Your task to perform on an android device: Add "logitech g pro" to the cart on costco, then select checkout. Image 0: 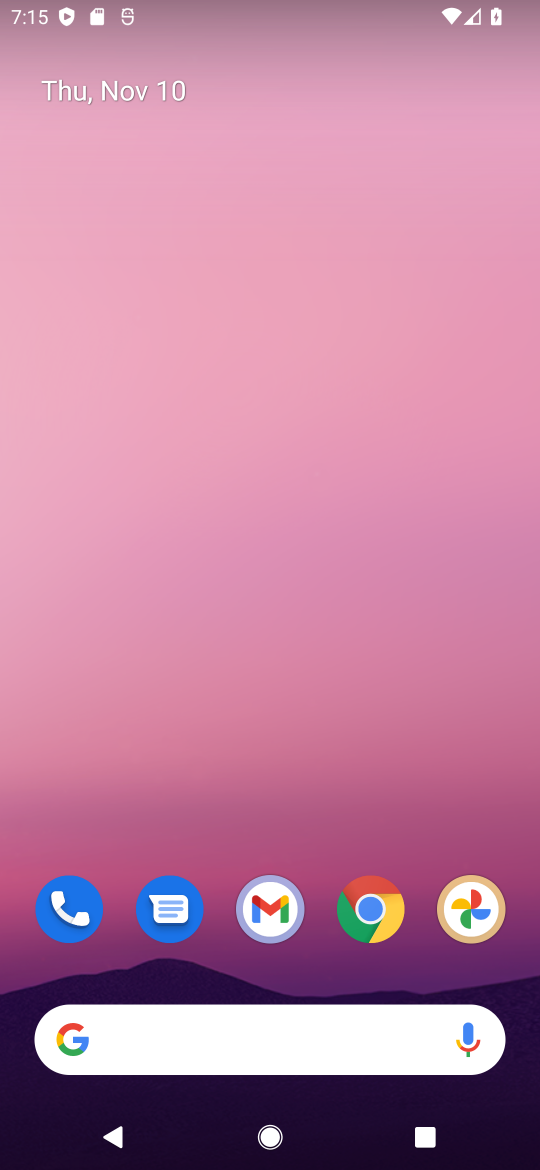
Step 0: drag from (272, 1002) to (294, 297)
Your task to perform on an android device: Add "logitech g pro" to the cart on costco, then select checkout. Image 1: 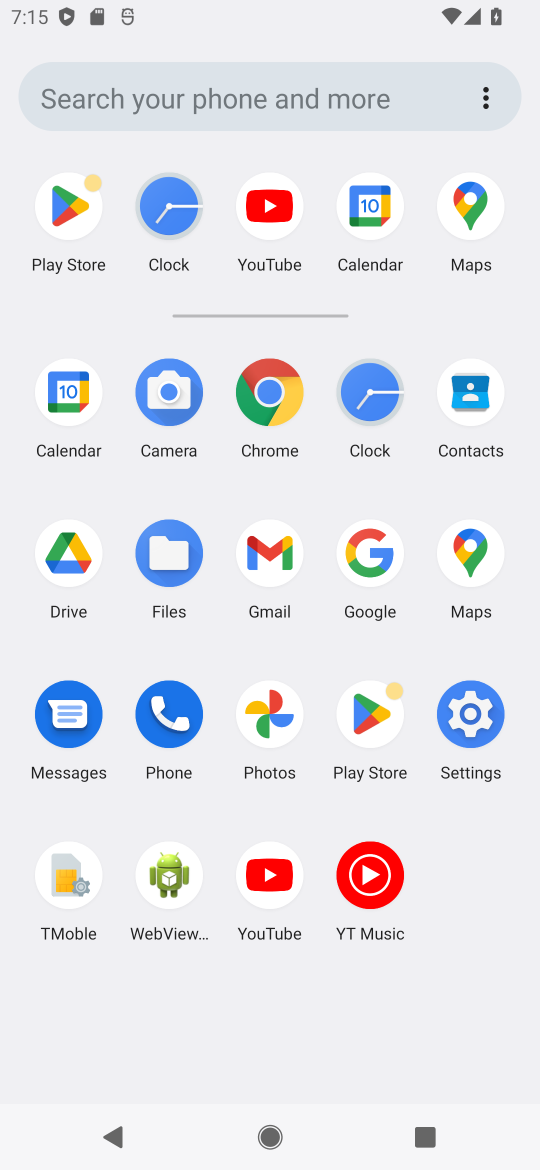
Step 1: click (354, 539)
Your task to perform on an android device: Add "logitech g pro" to the cart on costco, then select checkout. Image 2: 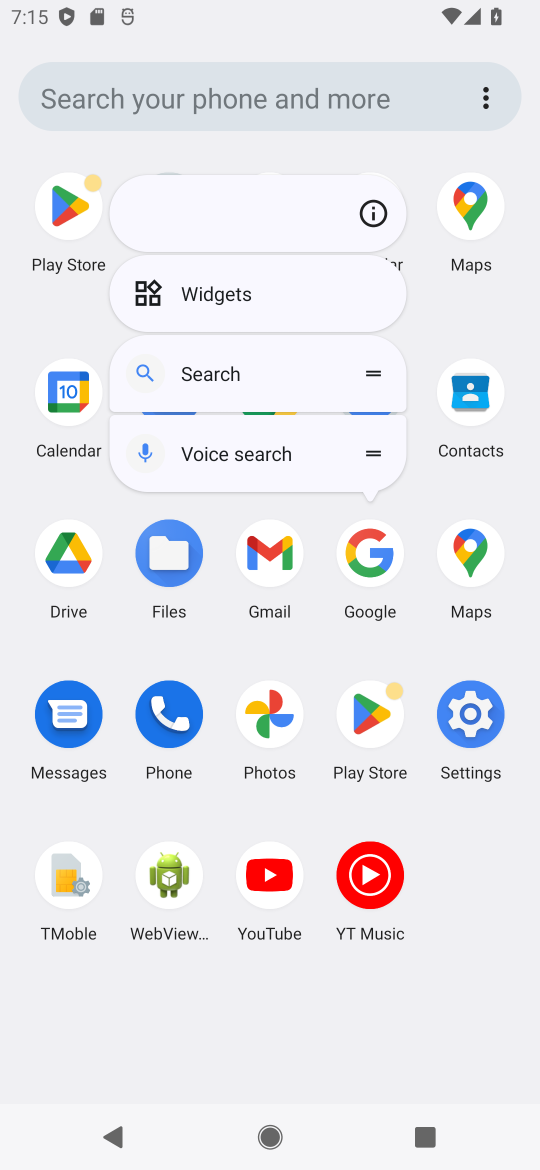
Step 2: click (373, 539)
Your task to perform on an android device: Add "logitech g pro" to the cart on costco, then select checkout. Image 3: 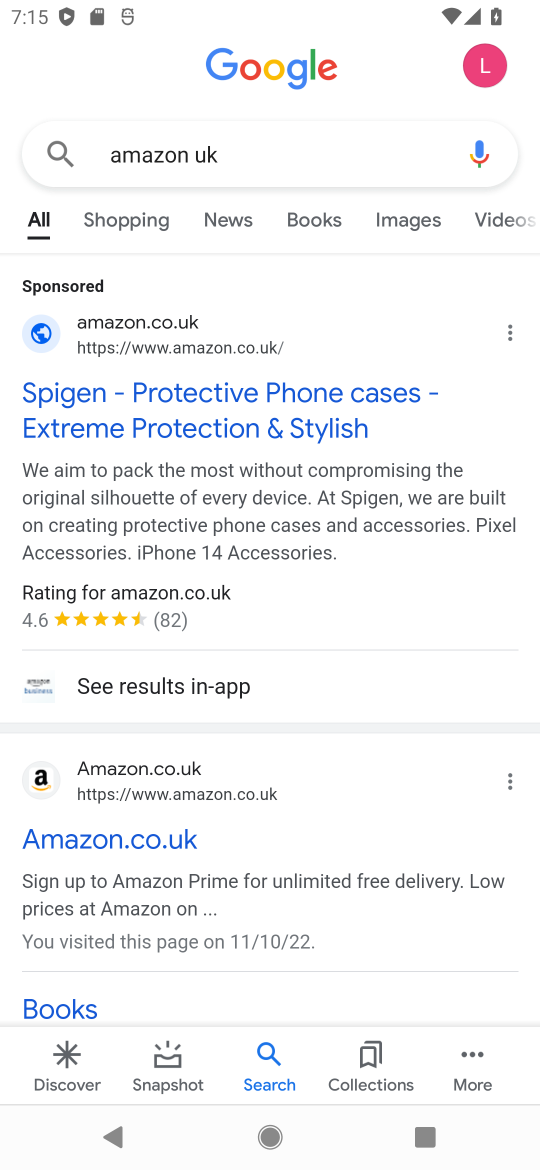
Step 3: click (265, 136)
Your task to perform on an android device: Add "logitech g pro" to the cart on costco, then select checkout. Image 4: 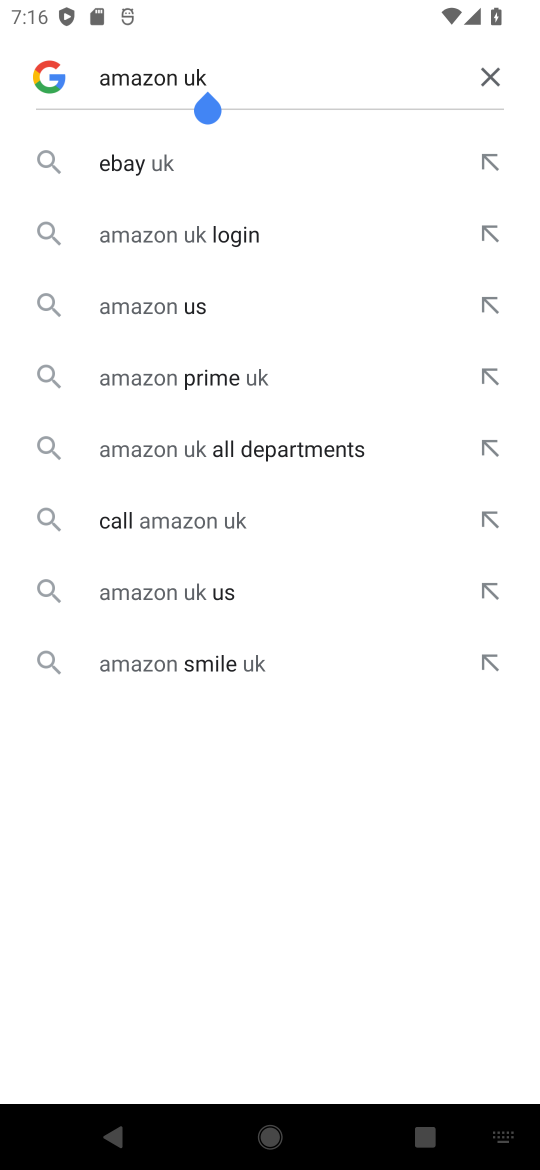
Step 4: click (486, 83)
Your task to perform on an android device: Add "logitech g pro" to the cart on costco, then select checkout. Image 5: 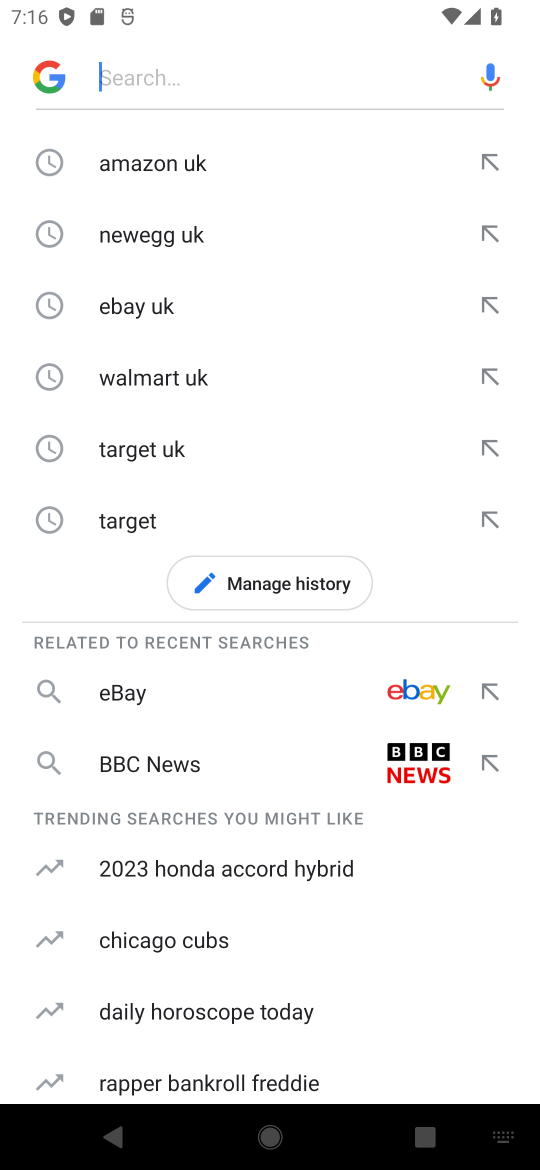
Step 5: click (155, 56)
Your task to perform on an android device: Add "logitech g pro" to the cart on costco, then select checkout. Image 6: 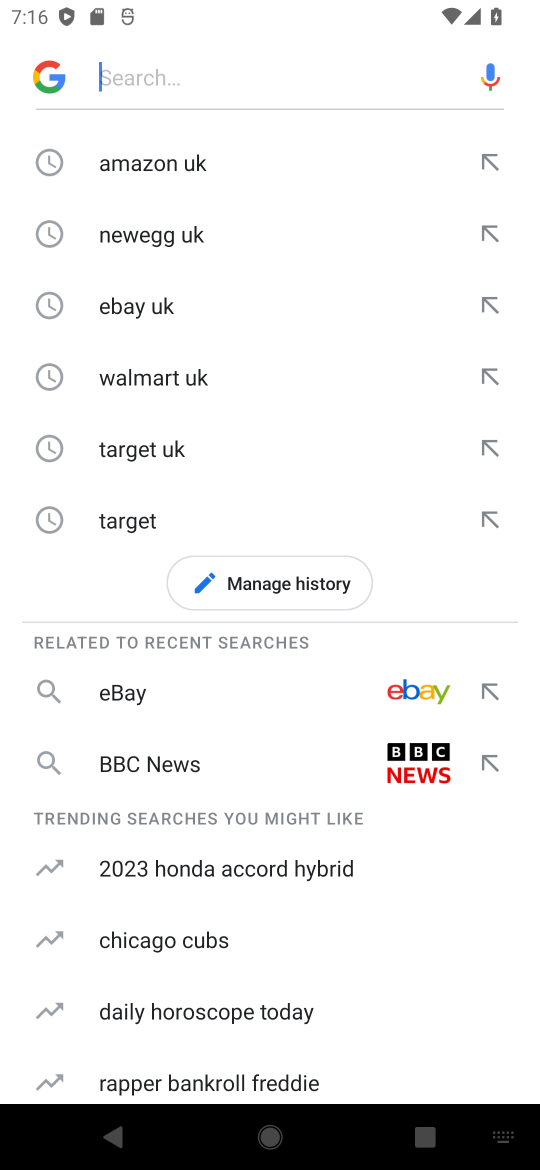
Step 6: type "costco "
Your task to perform on an android device: Add "logitech g pro" to the cart on costco, then select checkout. Image 7: 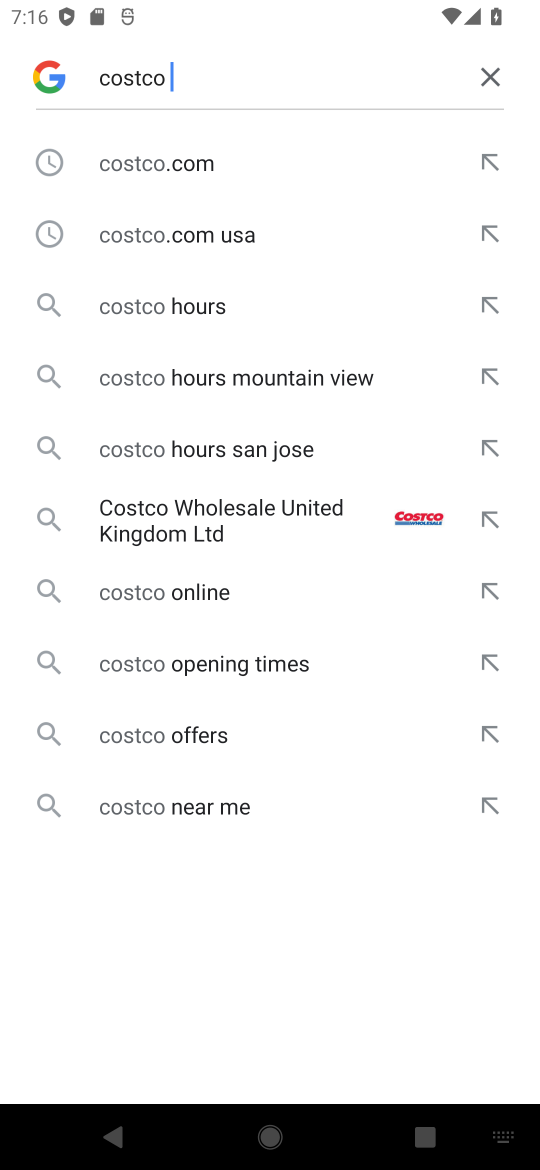
Step 7: click (127, 173)
Your task to perform on an android device: Add "logitech g pro" to the cart on costco, then select checkout. Image 8: 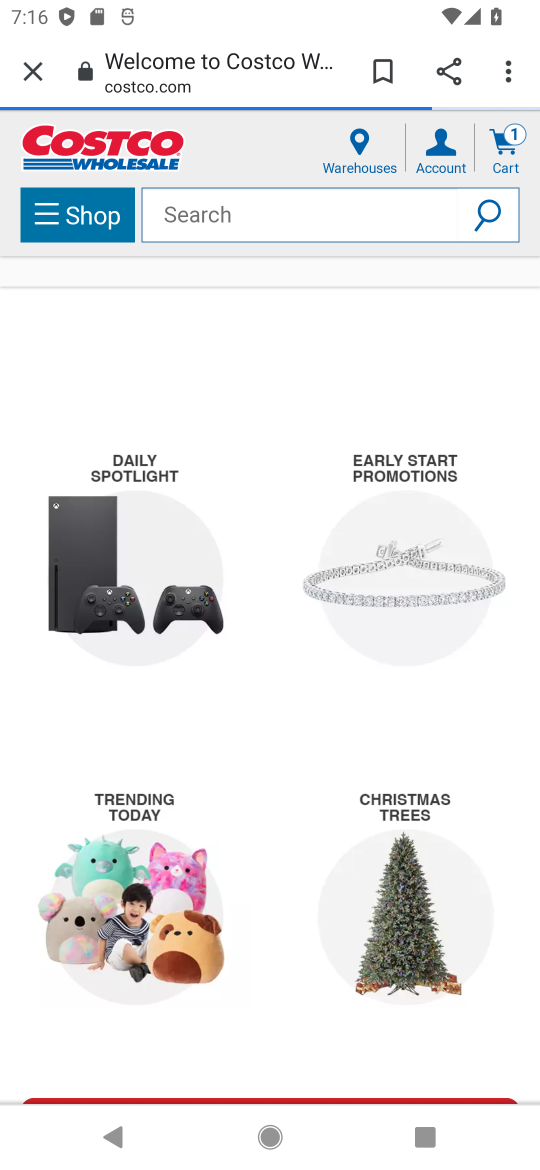
Step 8: click (243, 205)
Your task to perform on an android device: Add "logitech g pro" to the cart on costco, then select checkout. Image 9: 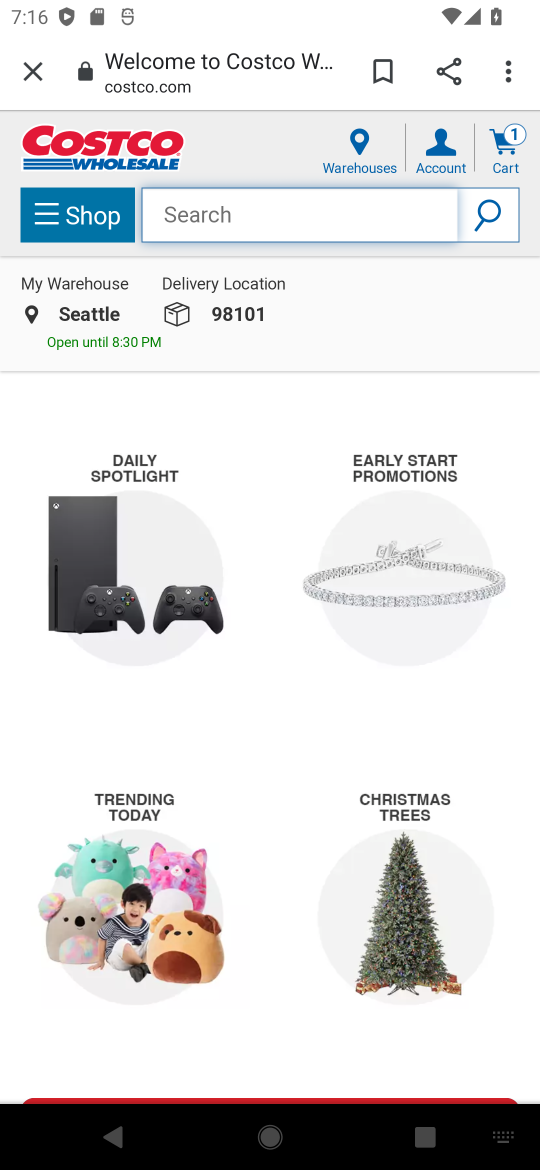
Step 9: click (276, 192)
Your task to perform on an android device: Add "logitech g pro" to the cart on costco, then select checkout. Image 10: 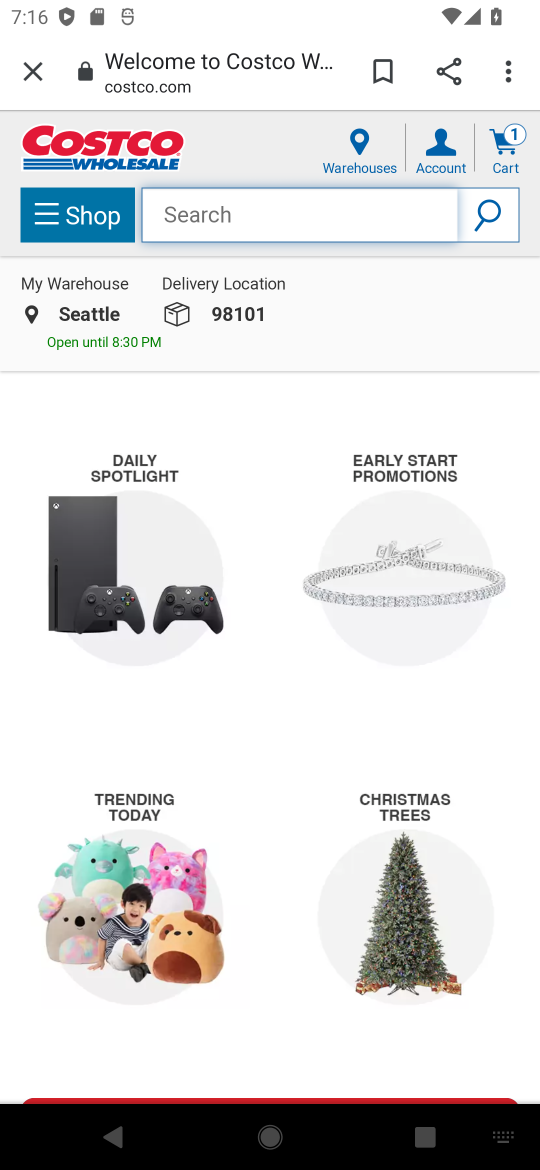
Step 10: type "logitech g pro "
Your task to perform on an android device: Add "logitech g pro" to the cart on costco, then select checkout. Image 11: 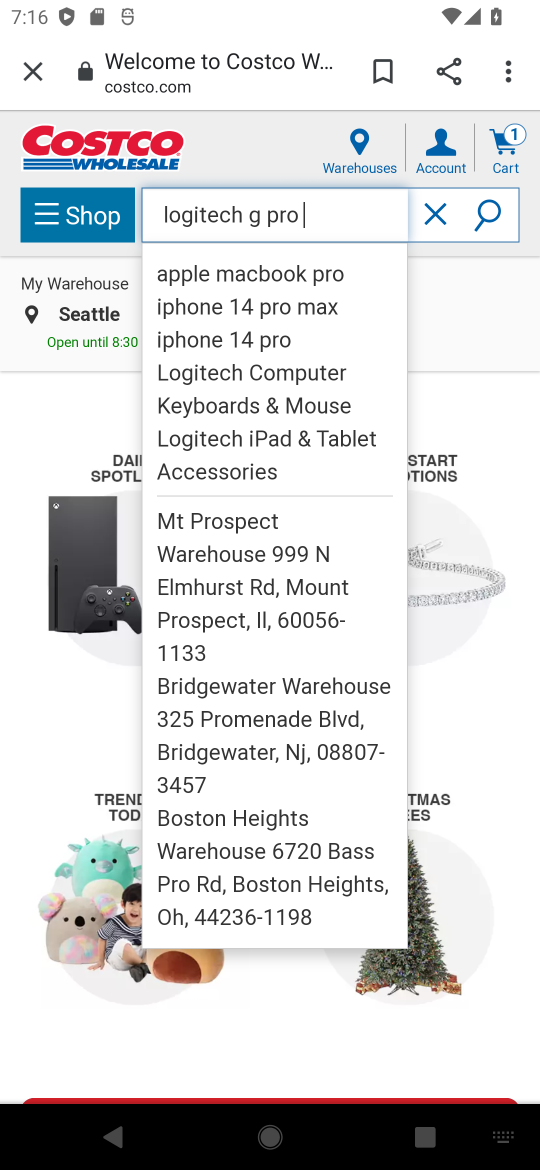
Step 11: click (494, 216)
Your task to perform on an android device: Add "logitech g pro" to the cart on costco, then select checkout. Image 12: 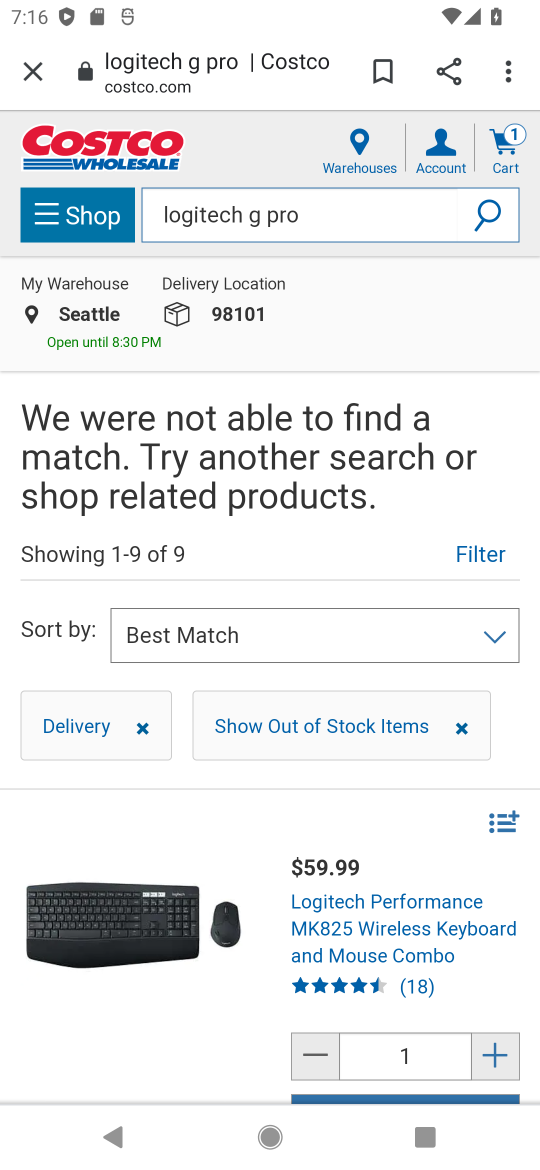
Step 12: drag from (331, 927) to (357, 568)
Your task to perform on an android device: Add "logitech g pro" to the cart on costco, then select checkout. Image 13: 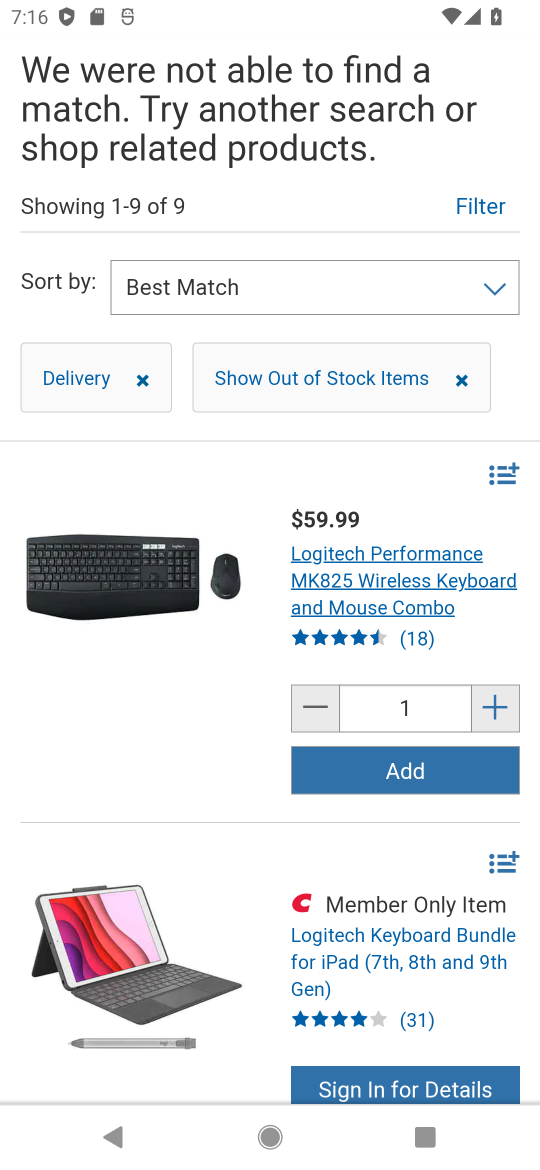
Step 13: click (378, 761)
Your task to perform on an android device: Add "logitech g pro" to the cart on costco, then select checkout. Image 14: 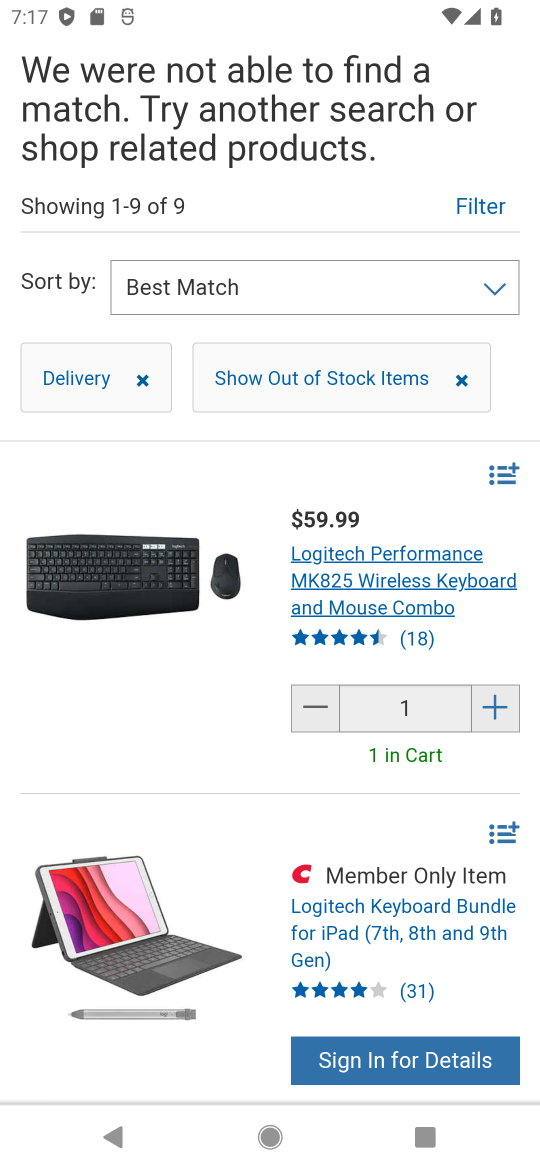
Step 14: task complete